Your task to perform on an android device: all mails in gmail Image 0: 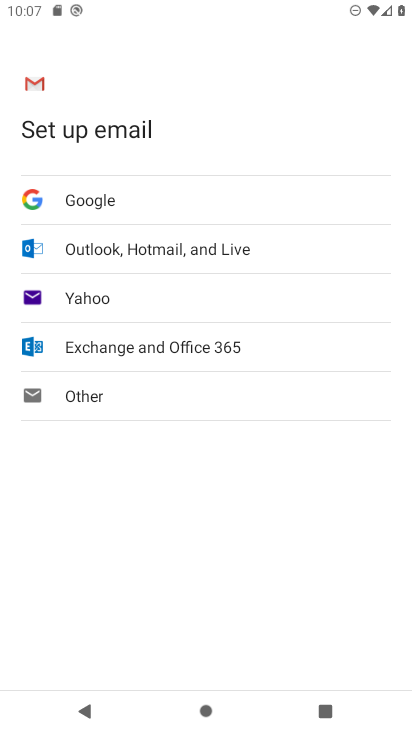
Step 0: press home button
Your task to perform on an android device: all mails in gmail Image 1: 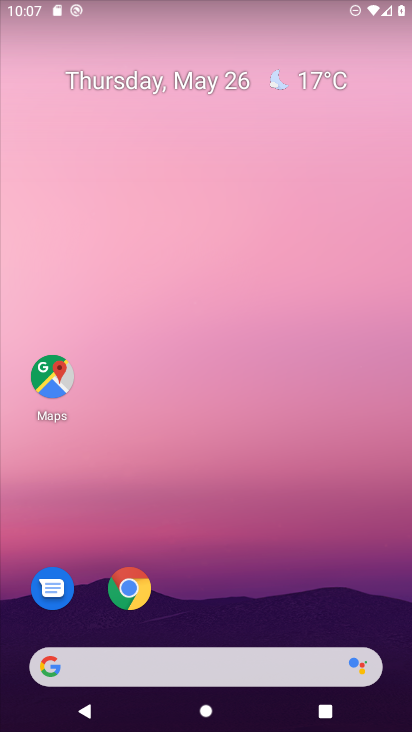
Step 1: drag from (369, 617) to (298, 19)
Your task to perform on an android device: all mails in gmail Image 2: 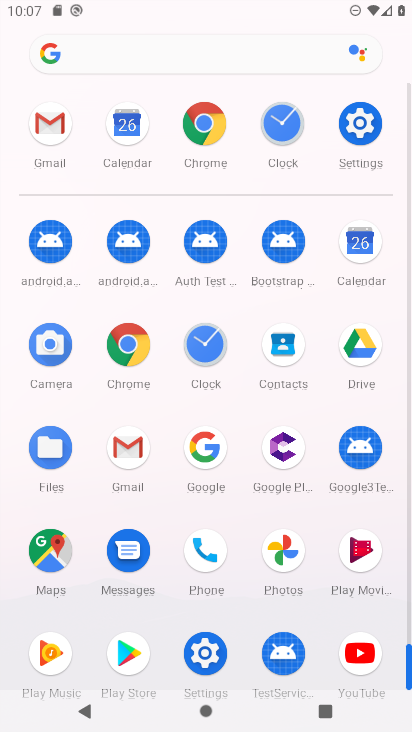
Step 2: click (124, 447)
Your task to perform on an android device: all mails in gmail Image 3: 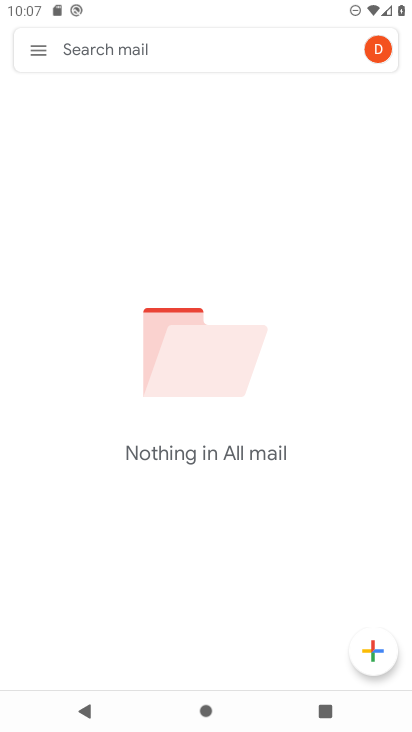
Step 3: click (33, 53)
Your task to perform on an android device: all mails in gmail Image 4: 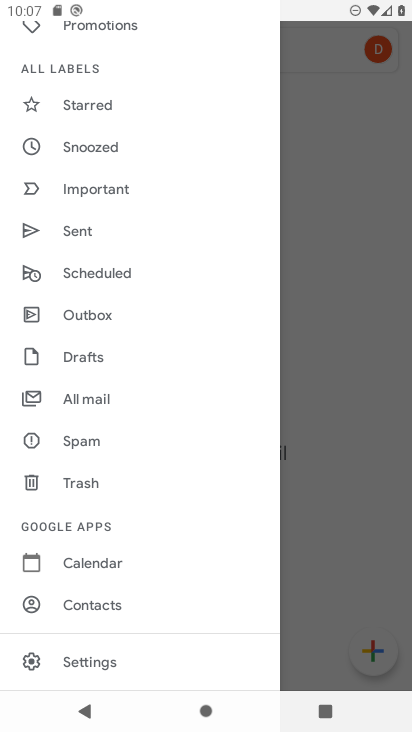
Step 4: click (92, 401)
Your task to perform on an android device: all mails in gmail Image 5: 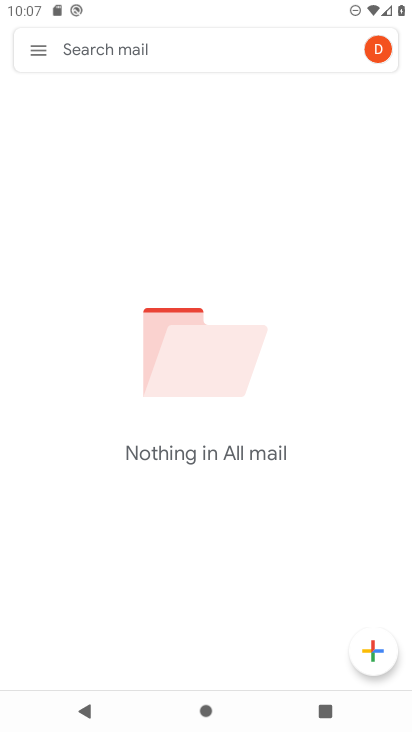
Step 5: task complete